Your task to perform on an android device: turn on bluetooth scan Image 0: 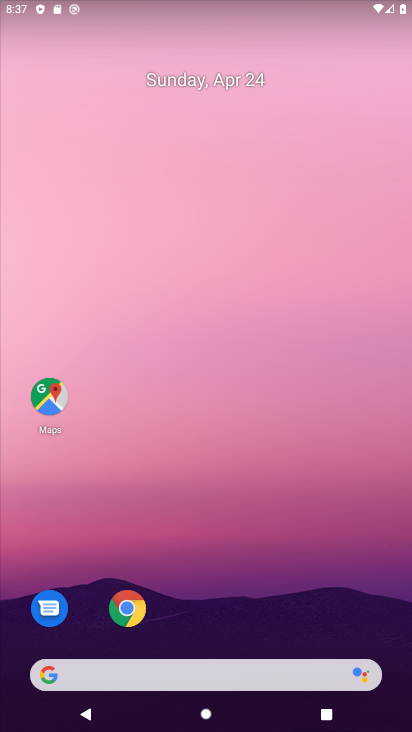
Step 0: drag from (216, 601) to (210, 123)
Your task to perform on an android device: turn on bluetooth scan Image 1: 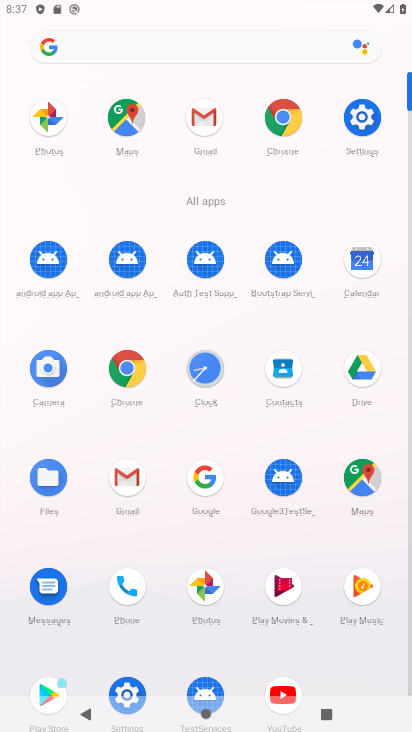
Step 1: click (350, 127)
Your task to perform on an android device: turn on bluetooth scan Image 2: 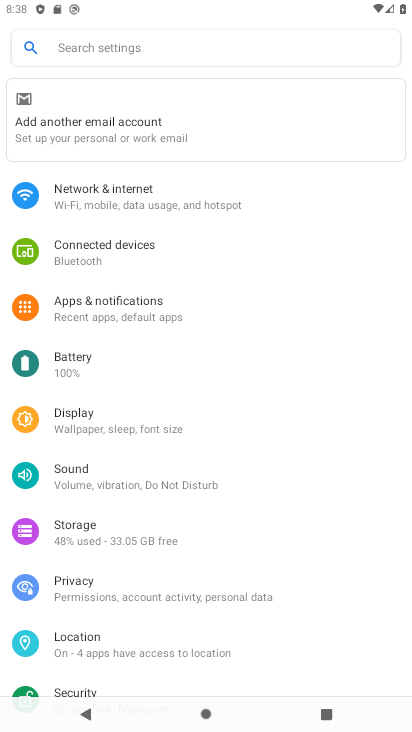
Step 2: click (135, 642)
Your task to perform on an android device: turn on bluetooth scan Image 3: 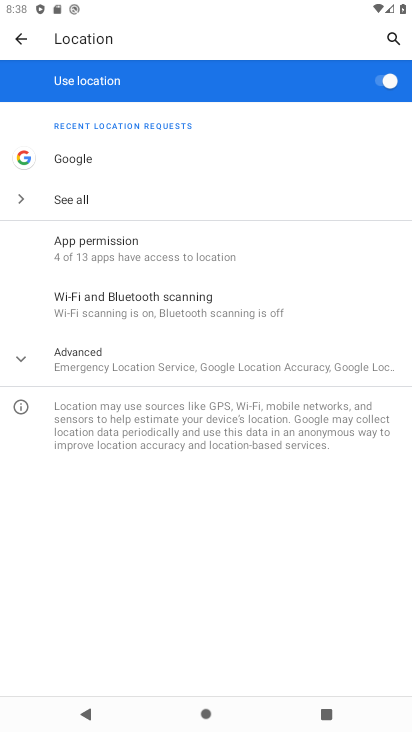
Step 3: click (186, 311)
Your task to perform on an android device: turn on bluetooth scan Image 4: 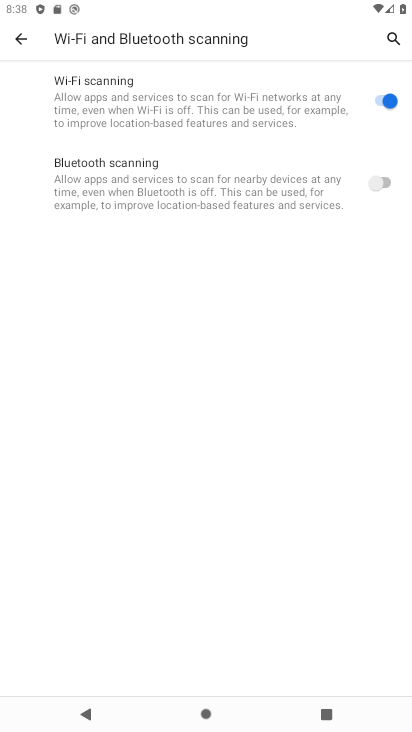
Step 4: click (383, 178)
Your task to perform on an android device: turn on bluetooth scan Image 5: 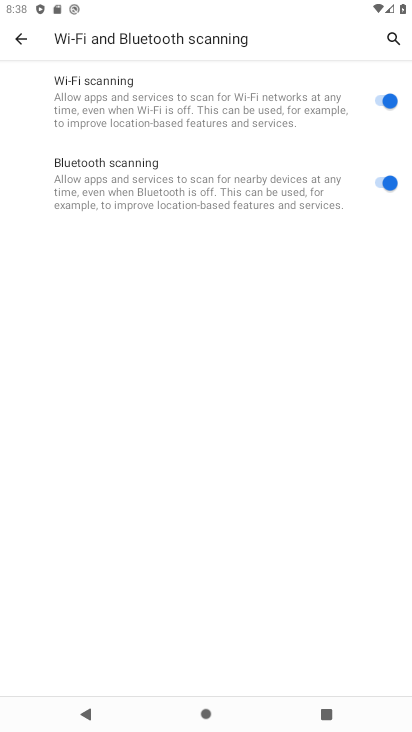
Step 5: task complete